Your task to perform on an android device: Go to notification settings Image 0: 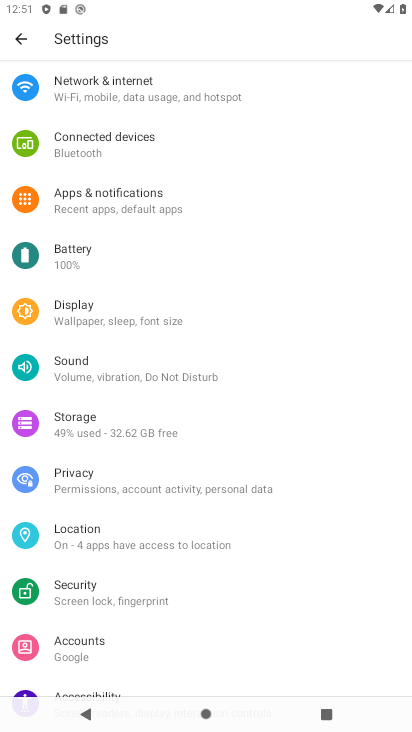
Step 0: click (140, 198)
Your task to perform on an android device: Go to notification settings Image 1: 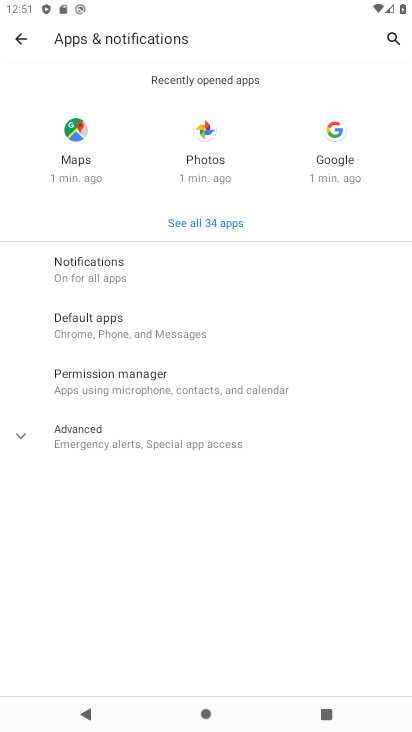
Step 1: click (139, 201)
Your task to perform on an android device: Go to notification settings Image 2: 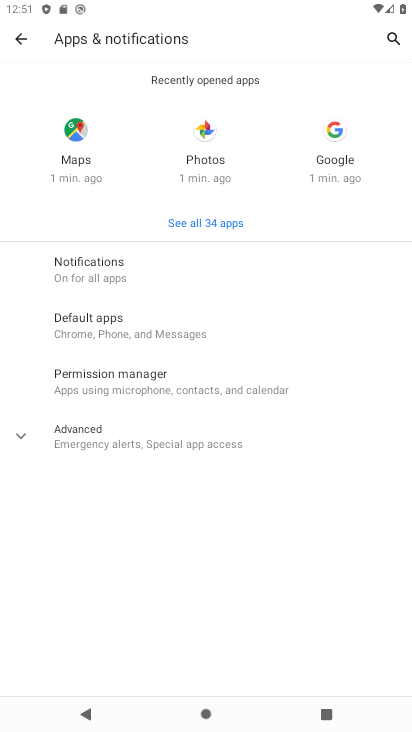
Step 2: click (119, 265)
Your task to perform on an android device: Go to notification settings Image 3: 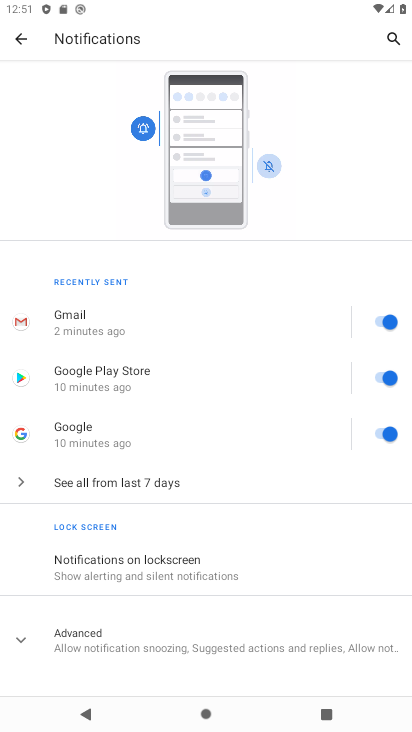
Step 3: task complete